Your task to perform on an android device: Open the phone app and click the voicemail tab. Image 0: 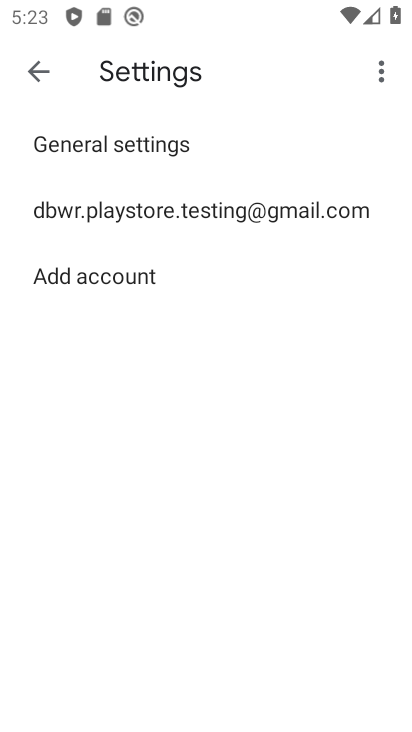
Step 0: press home button
Your task to perform on an android device: Open the phone app and click the voicemail tab. Image 1: 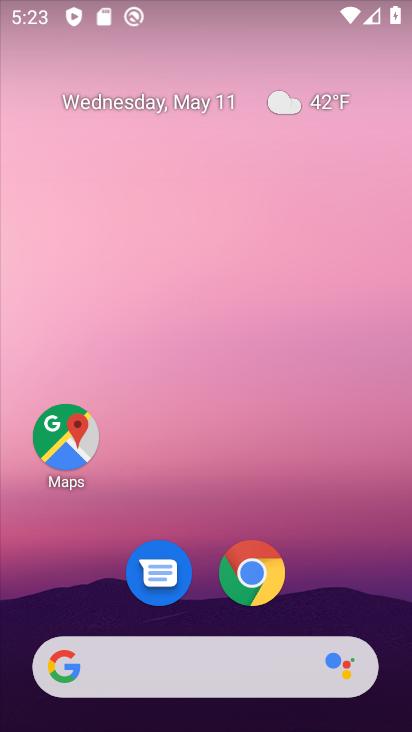
Step 1: click (261, 281)
Your task to perform on an android device: Open the phone app and click the voicemail tab. Image 2: 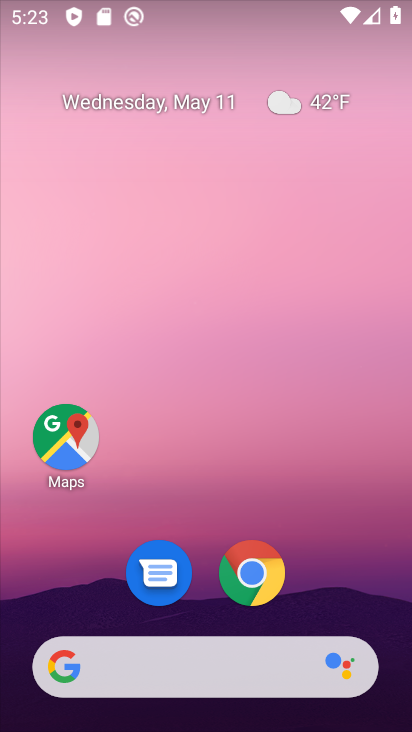
Step 2: drag from (308, 608) to (271, 188)
Your task to perform on an android device: Open the phone app and click the voicemail tab. Image 3: 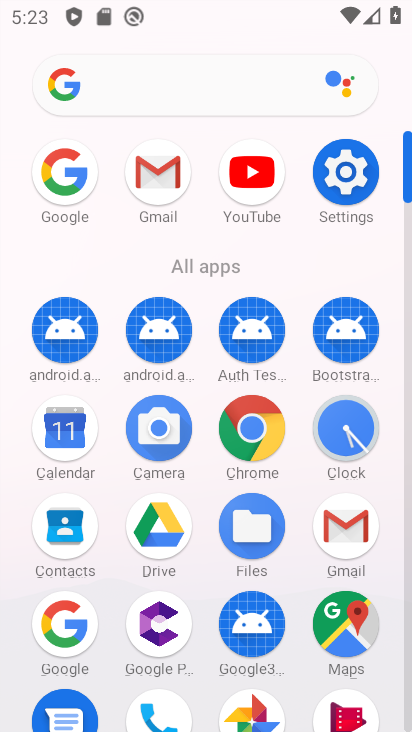
Step 3: click (162, 706)
Your task to perform on an android device: Open the phone app and click the voicemail tab. Image 4: 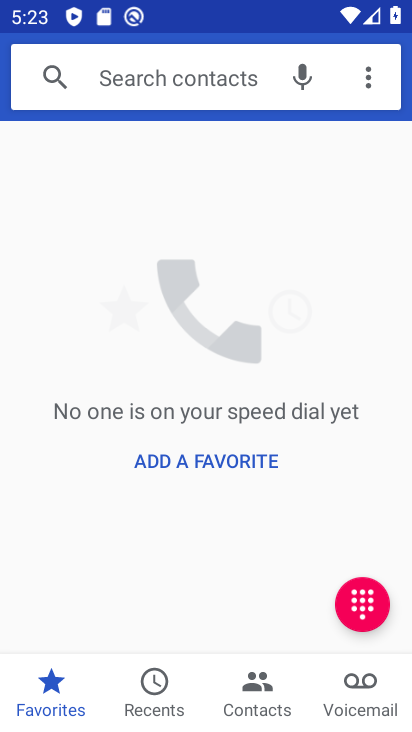
Step 4: click (348, 705)
Your task to perform on an android device: Open the phone app and click the voicemail tab. Image 5: 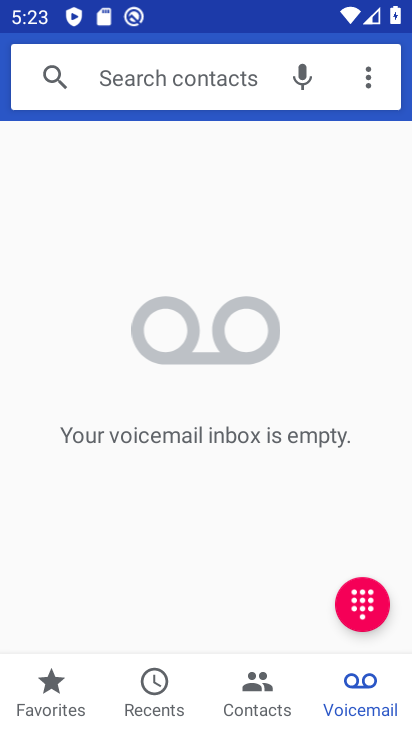
Step 5: task complete